Your task to perform on an android device: Find coffee shops on Maps Image 0: 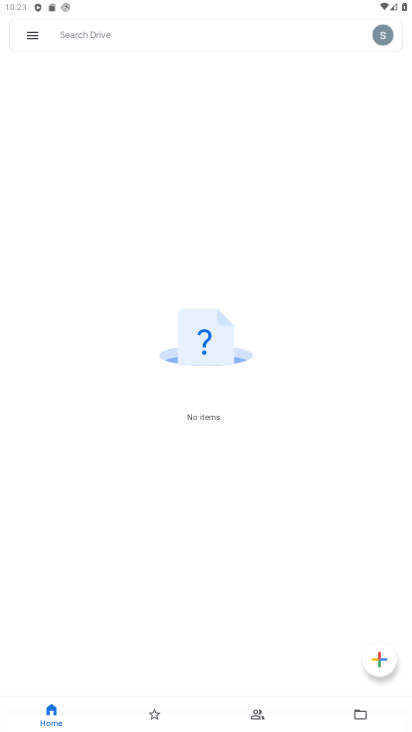
Step 0: press home button
Your task to perform on an android device: Find coffee shops on Maps Image 1: 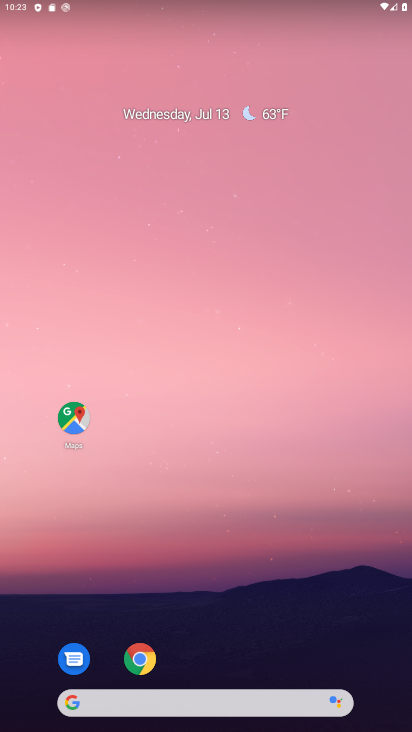
Step 1: drag from (384, 597) to (352, 69)
Your task to perform on an android device: Find coffee shops on Maps Image 2: 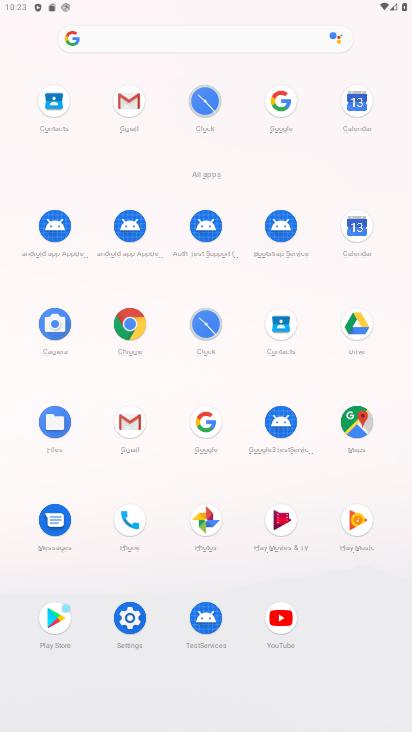
Step 2: click (362, 423)
Your task to perform on an android device: Find coffee shops on Maps Image 3: 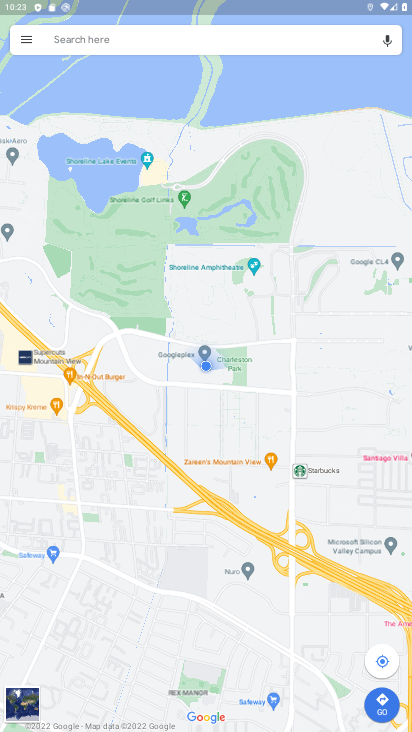
Step 3: click (241, 47)
Your task to perform on an android device: Find coffee shops on Maps Image 4: 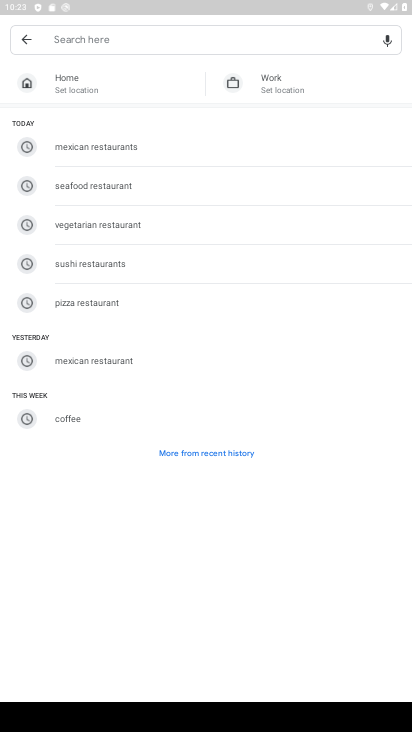
Step 4: type "coffee shops"
Your task to perform on an android device: Find coffee shops on Maps Image 5: 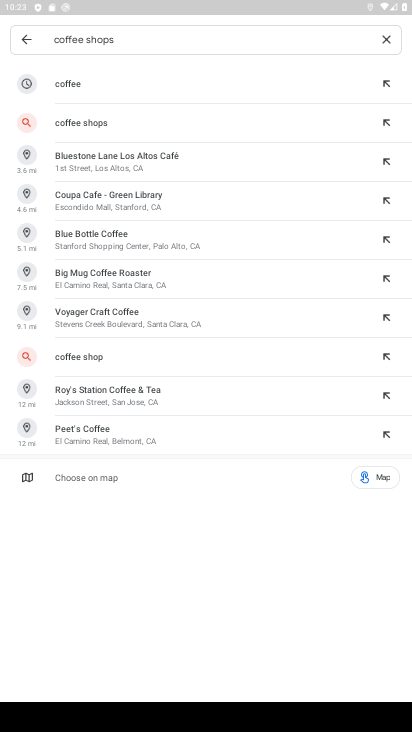
Step 5: click (94, 127)
Your task to perform on an android device: Find coffee shops on Maps Image 6: 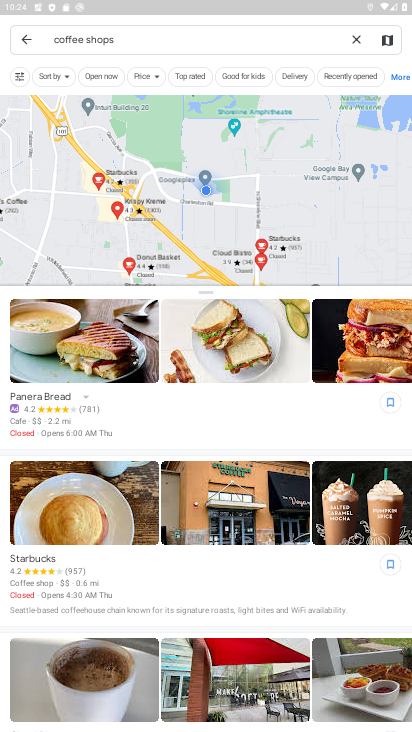
Step 6: task complete